Your task to perform on an android device: add a label to a message in the gmail app Image 0: 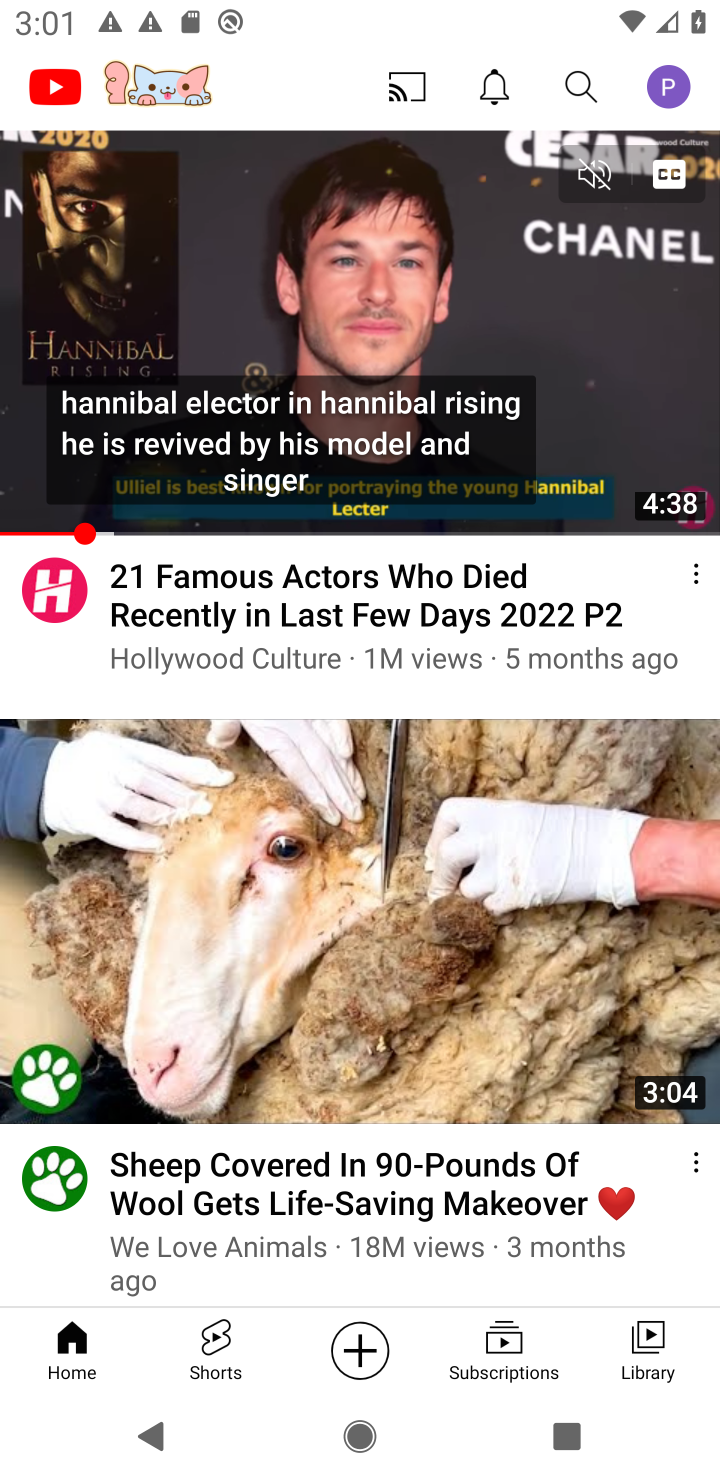
Step 0: press home button
Your task to perform on an android device: add a label to a message in the gmail app Image 1: 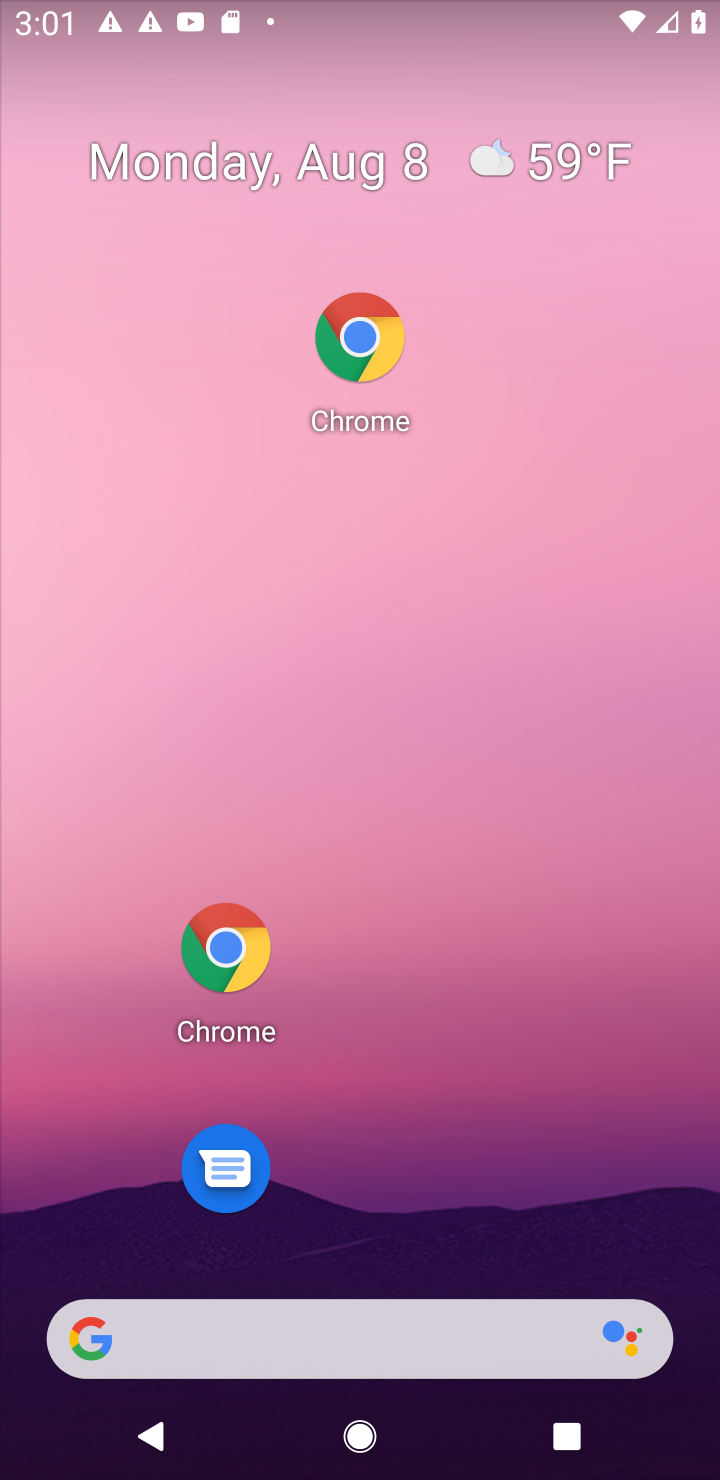
Step 1: drag from (450, 1251) to (539, 84)
Your task to perform on an android device: add a label to a message in the gmail app Image 2: 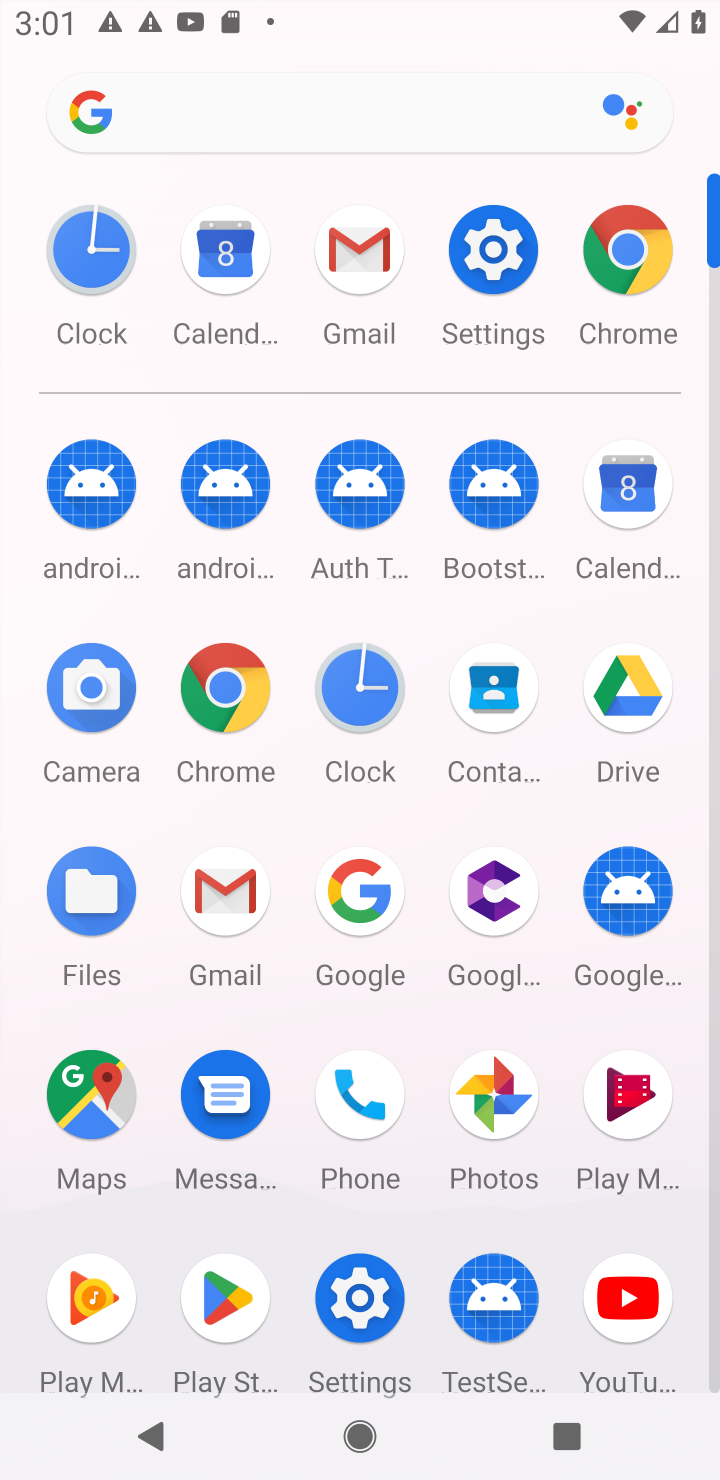
Step 2: click (378, 256)
Your task to perform on an android device: add a label to a message in the gmail app Image 3: 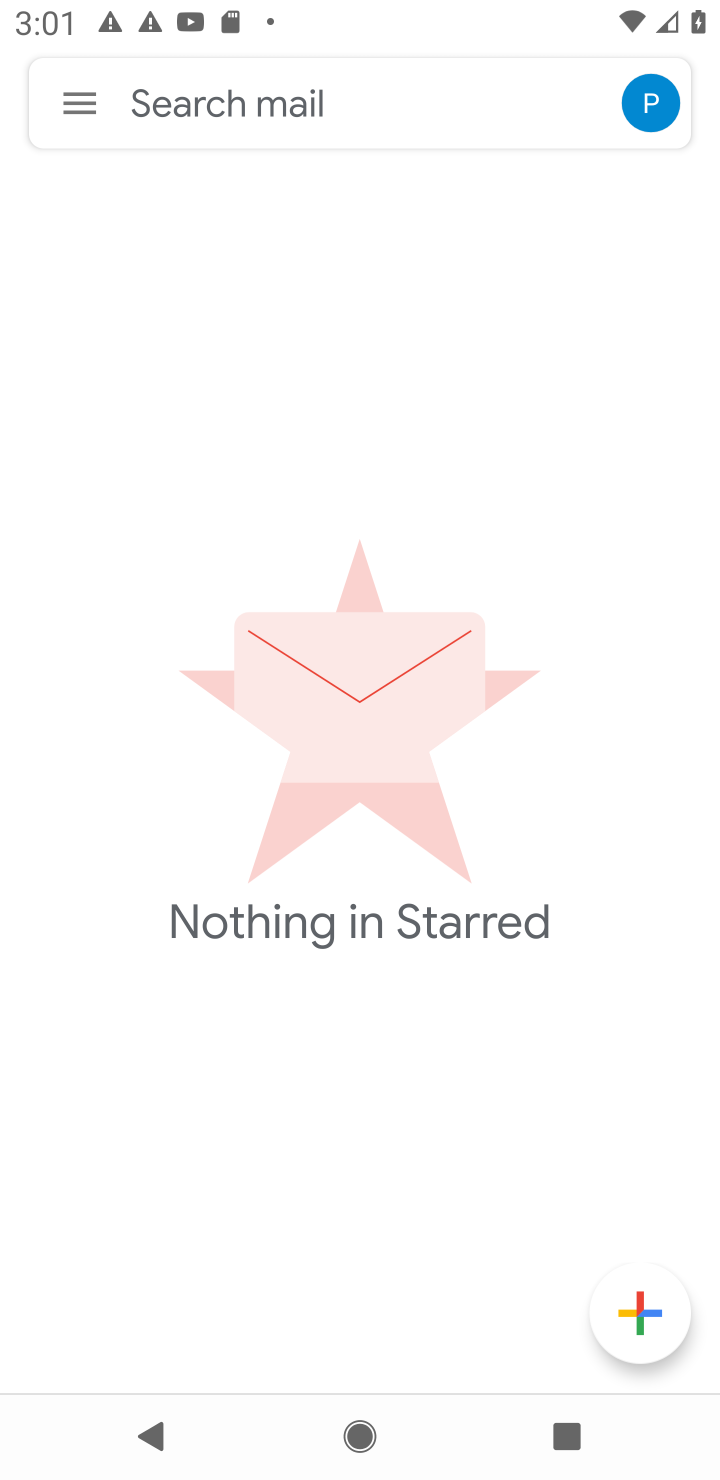
Step 3: task complete